Your task to perform on an android device: When is my next meeting? Image 0: 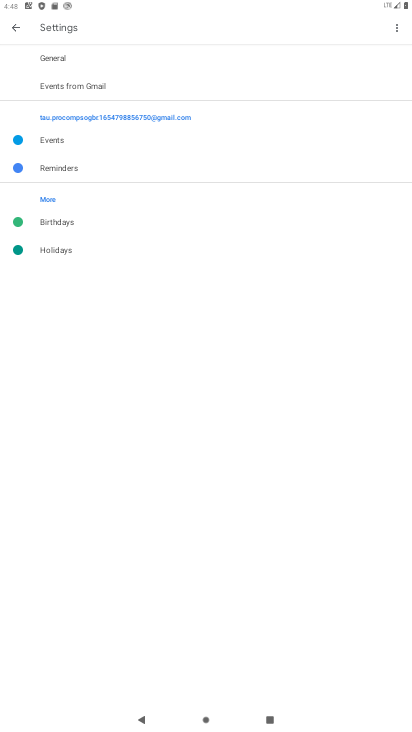
Step 0: press home button
Your task to perform on an android device: When is my next meeting? Image 1: 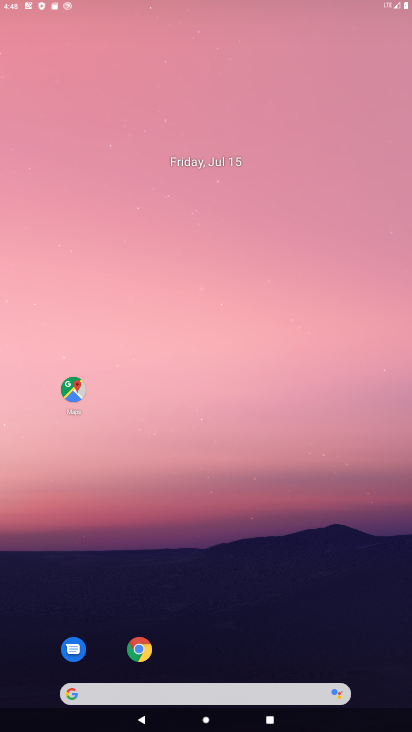
Step 1: drag from (252, 596) to (262, 64)
Your task to perform on an android device: When is my next meeting? Image 2: 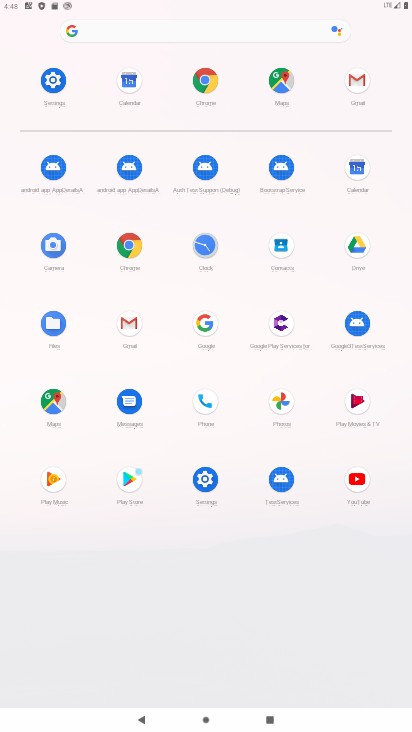
Step 2: click (351, 159)
Your task to perform on an android device: When is my next meeting? Image 3: 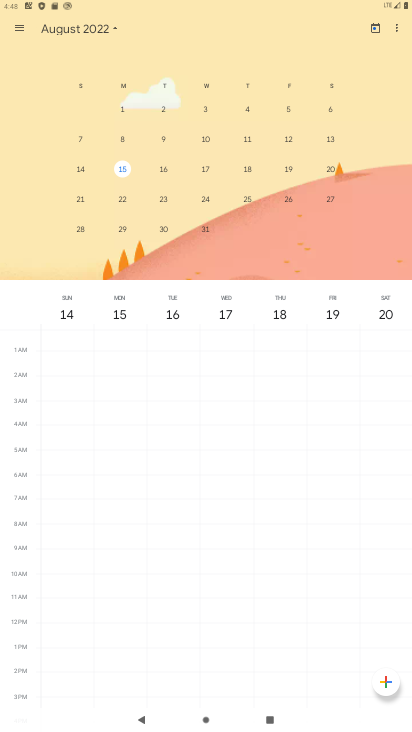
Step 3: click (82, 27)
Your task to perform on an android device: When is my next meeting? Image 4: 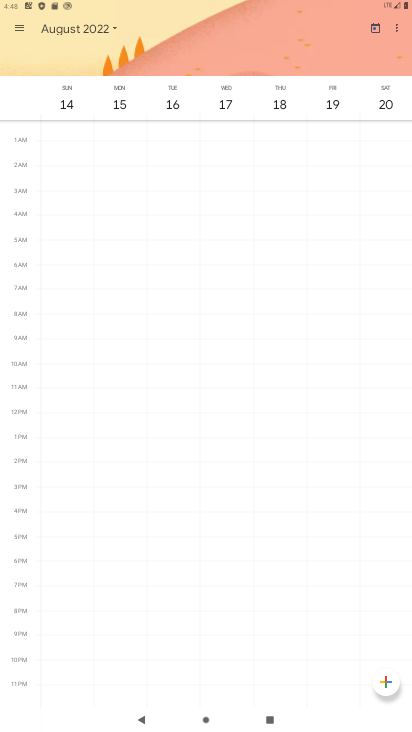
Step 4: click (83, 30)
Your task to perform on an android device: When is my next meeting? Image 5: 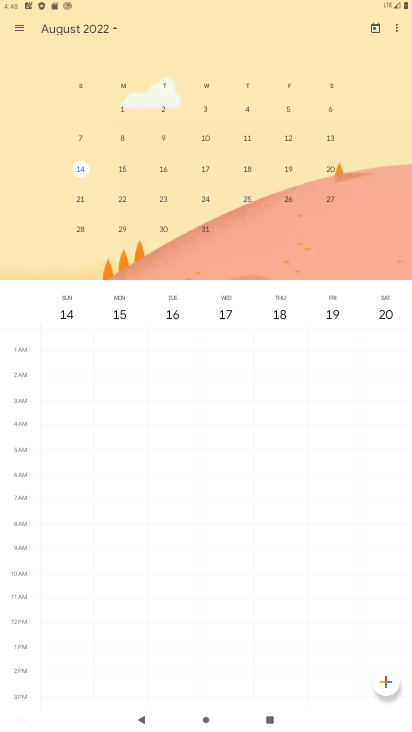
Step 5: drag from (51, 143) to (374, 161)
Your task to perform on an android device: When is my next meeting? Image 6: 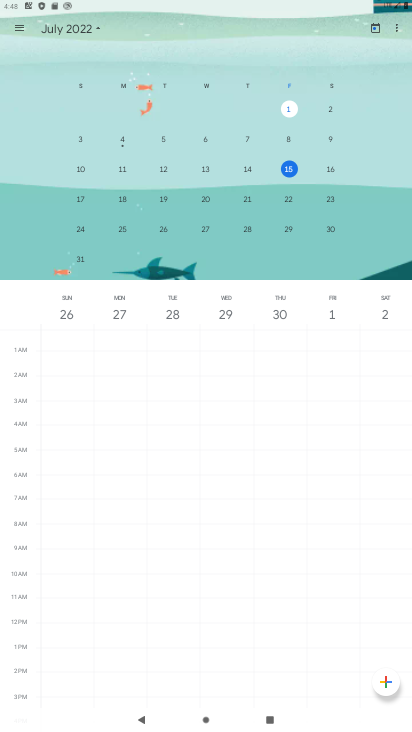
Step 6: click (293, 172)
Your task to perform on an android device: When is my next meeting? Image 7: 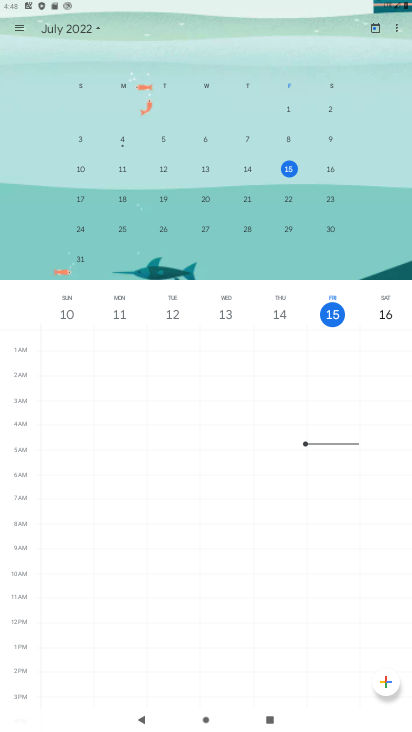
Step 7: task complete